Your task to perform on an android device: open the mobile data screen to see how much data has been used Image 0: 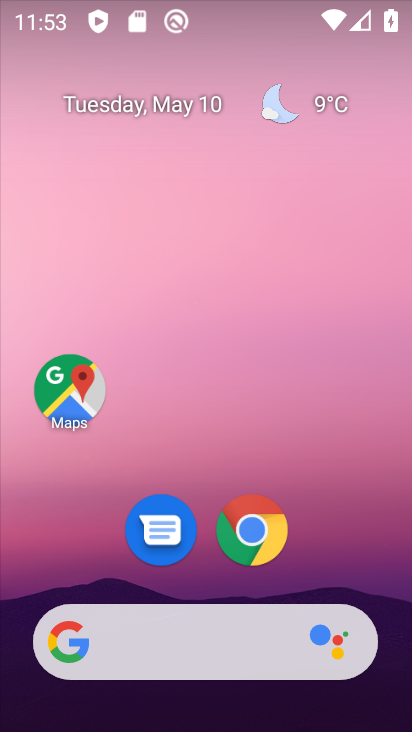
Step 0: drag from (78, 8) to (78, 384)
Your task to perform on an android device: open the mobile data screen to see how much data has been used Image 1: 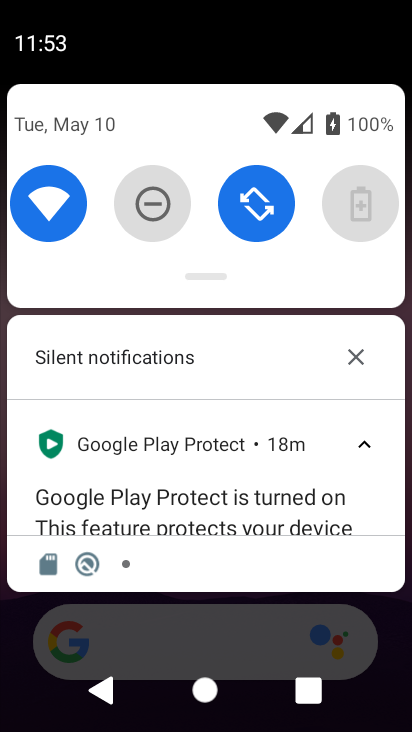
Step 1: drag from (189, 262) to (177, 519)
Your task to perform on an android device: open the mobile data screen to see how much data has been used Image 2: 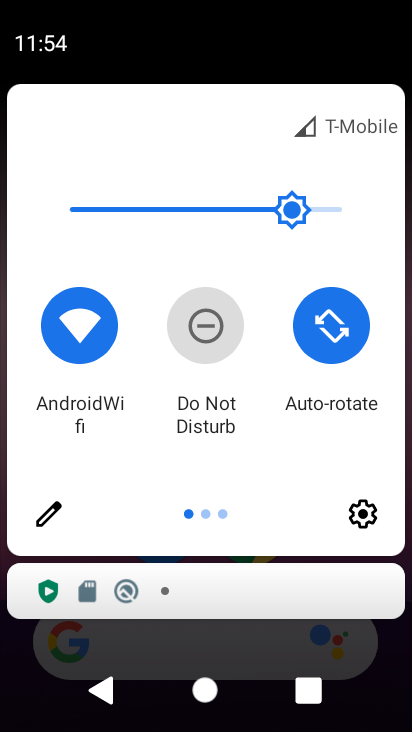
Step 2: drag from (386, 318) to (38, 318)
Your task to perform on an android device: open the mobile data screen to see how much data has been used Image 3: 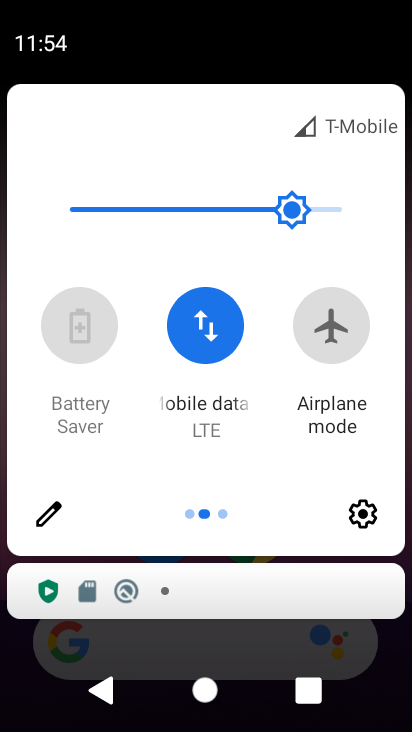
Step 3: click (356, 332)
Your task to perform on an android device: open the mobile data screen to see how much data has been used Image 4: 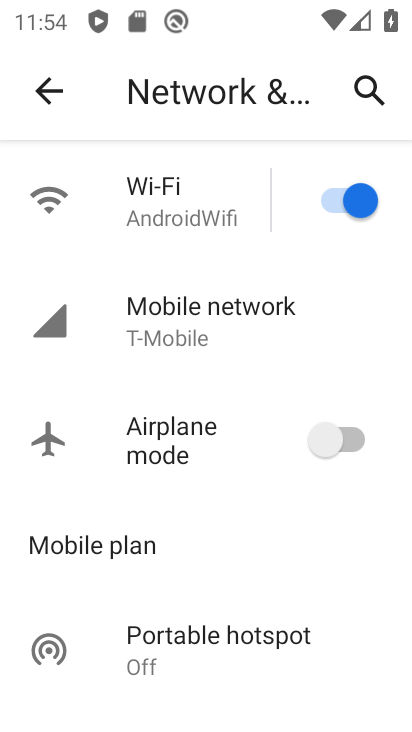
Step 4: click (54, 94)
Your task to perform on an android device: open the mobile data screen to see how much data has been used Image 5: 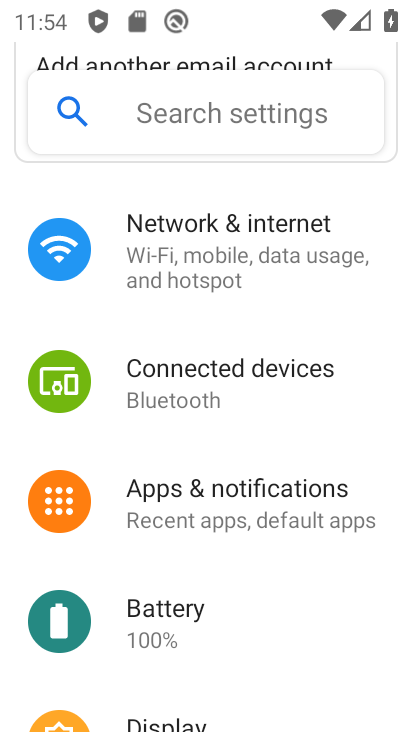
Step 5: drag from (221, 9) to (237, 307)
Your task to perform on an android device: open the mobile data screen to see how much data has been used Image 6: 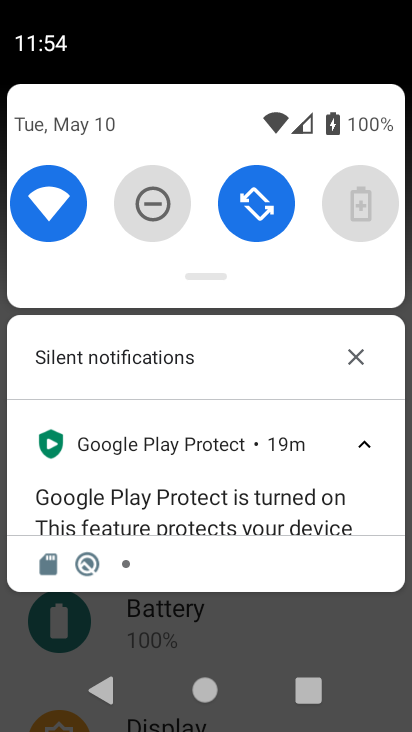
Step 6: drag from (265, 5) to (271, 370)
Your task to perform on an android device: open the mobile data screen to see how much data has been used Image 7: 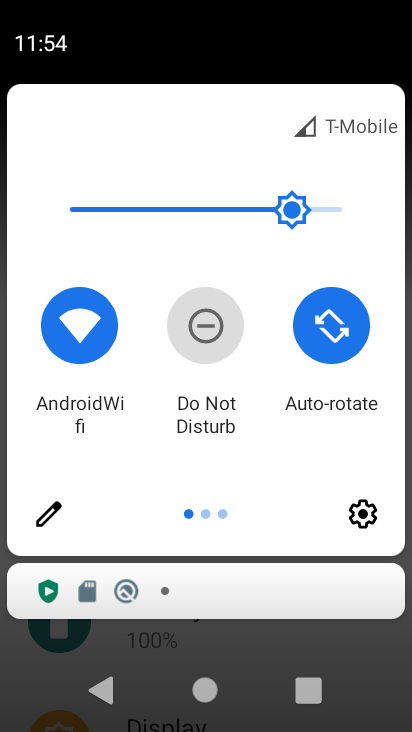
Step 7: drag from (323, 334) to (62, 401)
Your task to perform on an android device: open the mobile data screen to see how much data has been used Image 8: 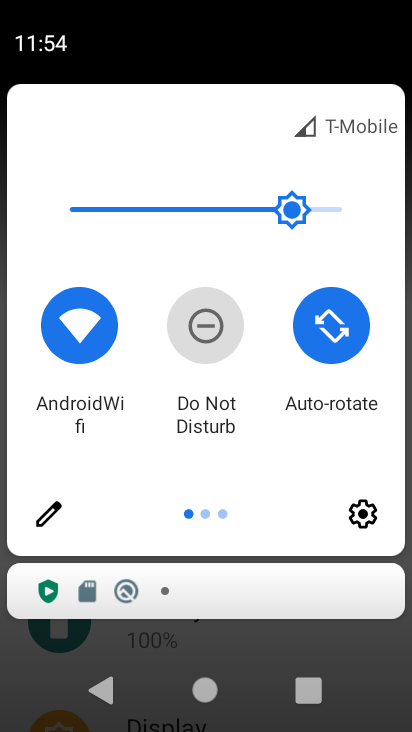
Step 8: drag from (277, 333) to (1, 46)
Your task to perform on an android device: open the mobile data screen to see how much data has been used Image 9: 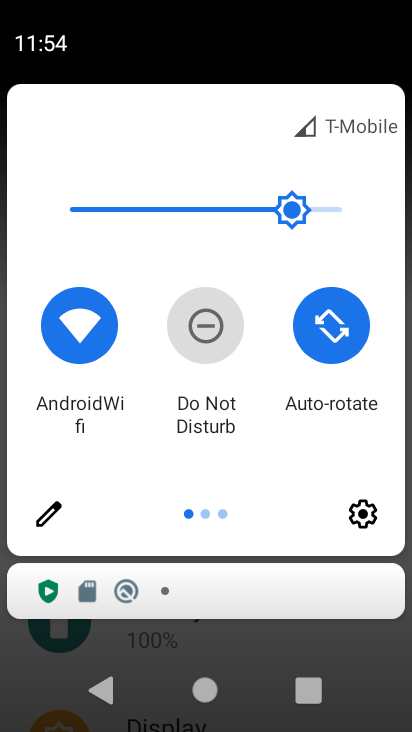
Step 9: drag from (379, 419) to (14, 456)
Your task to perform on an android device: open the mobile data screen to see how much data has been used Image 10: 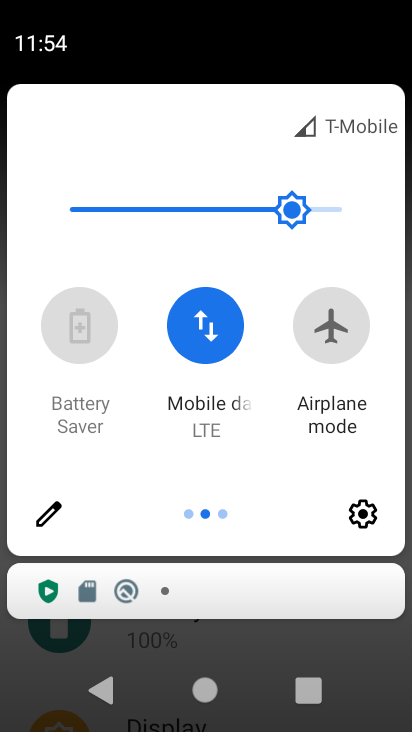
Step 10: click (200, 320)
Your task to perform on an android device: open the mobile data screen to see how much data has been used Image 11: 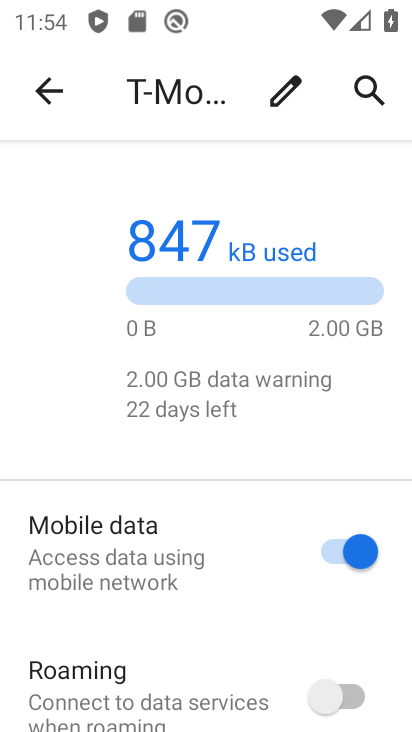
Step 11: task complete